Your task to perform on an android device: turn vacation reply on in the gmail app Image 0: 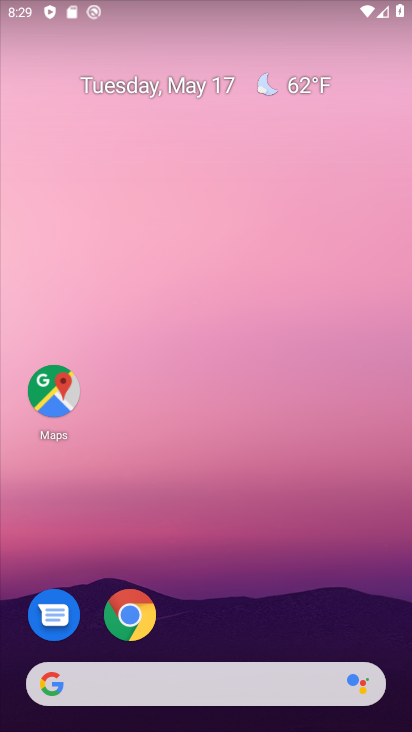
Step 0: drag from (261, 580) to (252, 79)
Your task to perform on an android device: turn vacation reply on in the gmail app Image 1: 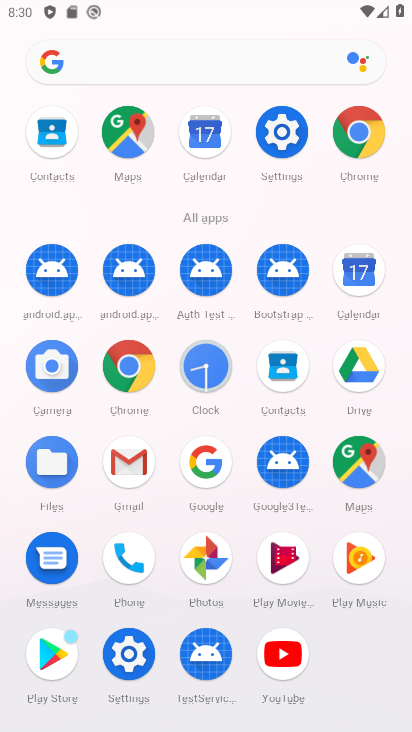
Step 1: click (134, 456)
Your task to perform on an android device: turn vacation reply on in the gmail app Image 2: 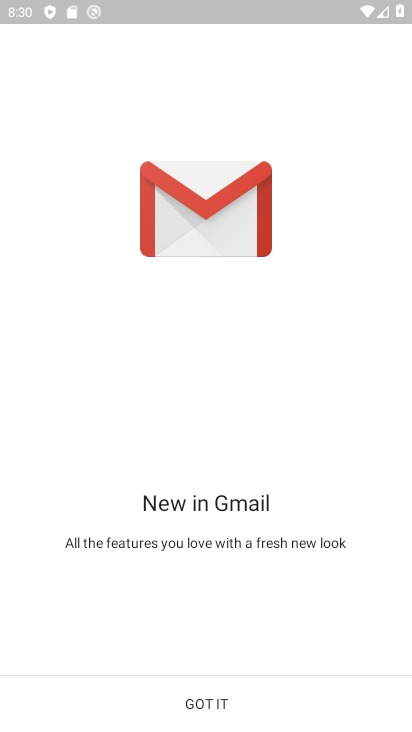
Step 2: click (207, 694)
Your task to perform on an android device: turn vacation reply on in the gmail app Image 3: 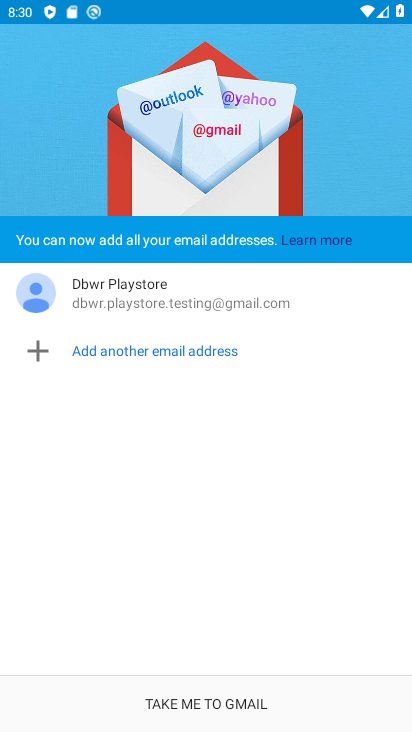
Step 3: click (207, 694)
Your task to perform on an android device: turn vacation reply on in the gmail app Image 4: 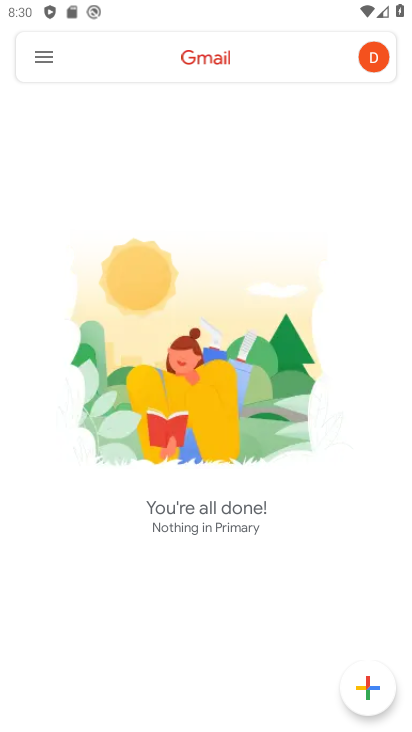
Step 4: click (207, 694)
Your task to perform on an android device: turn vacation reply on in the gmail app Image 5: 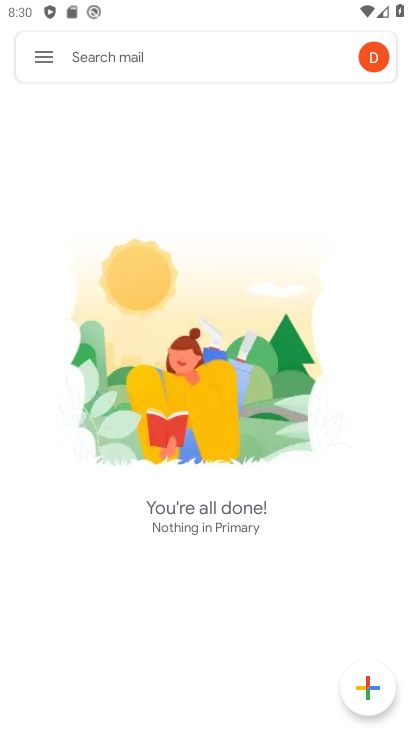
Step 5: click (43, 49)
Your task to perform on an android device: turn vacation reply on in the gmail app Image 6: 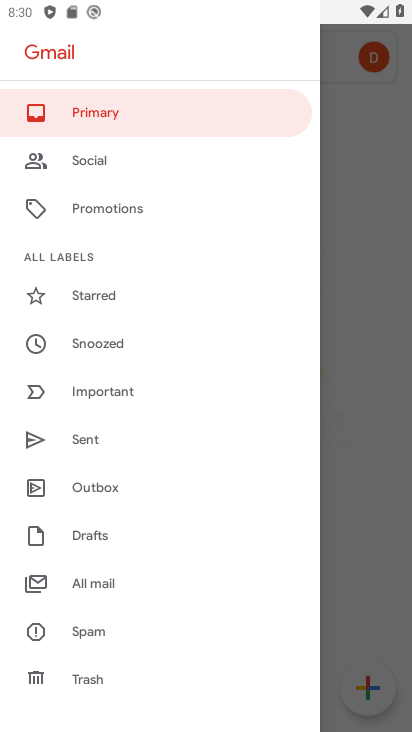
Step 6: drag from (189, 625) to (207, 212)
Your task to perform on an android device: turn vacation reply on in the gmail app Image 7: 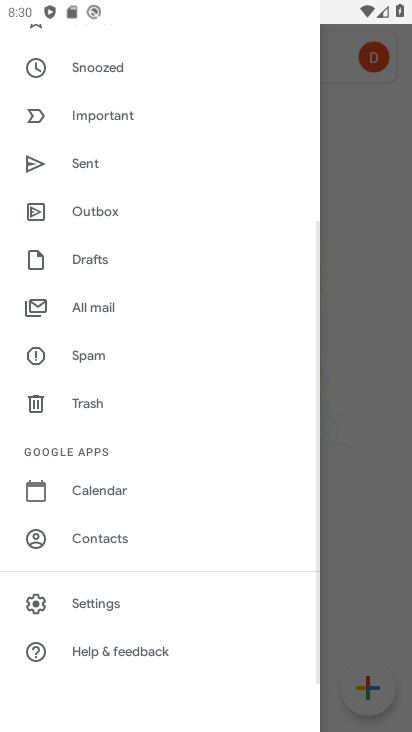
Step 7: click (93, 597)
Your task to perform on an android device: turn vacation reply on in the gmail app Image 8: 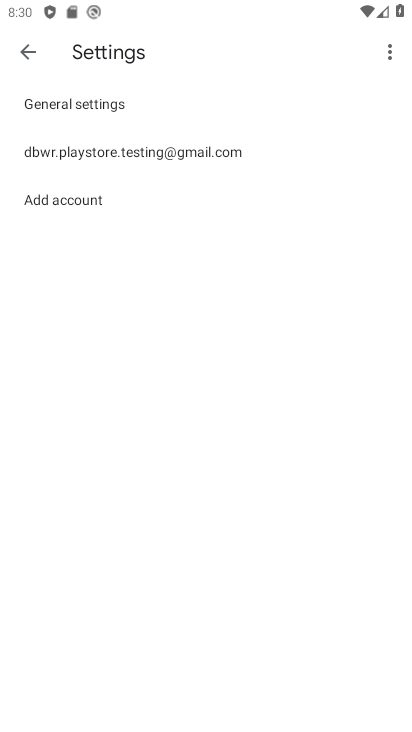
Step 8: click (191, 155)
Your task to perform on an android device: turn vacation reply on in the gmail app Image 9: 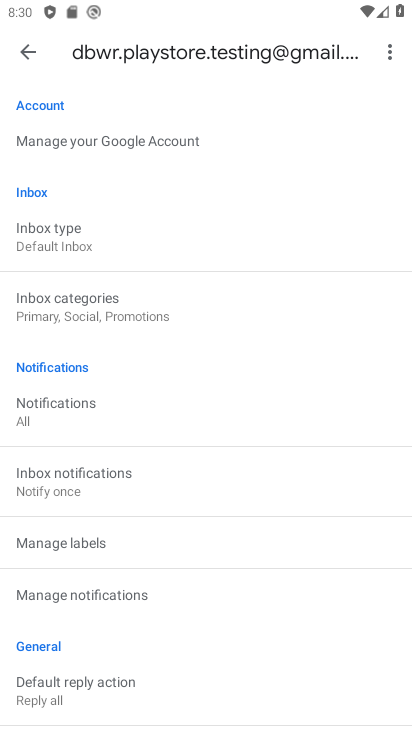
Step 9: drag from (204, 623) to (195, 261)
Your task to perform on an android device: turn vacation reply on in the gmail app Image 10: 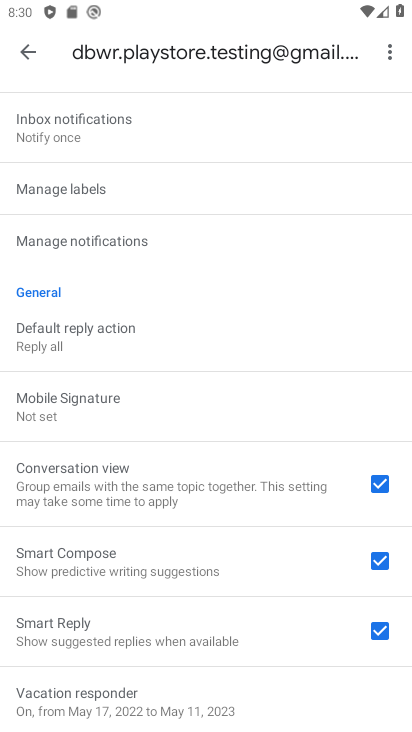
Step 10: drag from (189, 663) to (191, 306)
Your task to perform on an android device: turn vacation reply on in the gmail app Image 11: 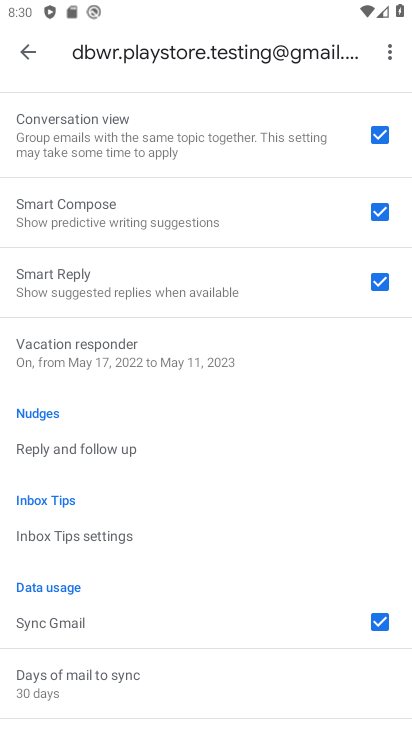
Step 11: click (91, 348)
Your task to perform on an android device: turn vacation reply on in the gmail app Image 12: 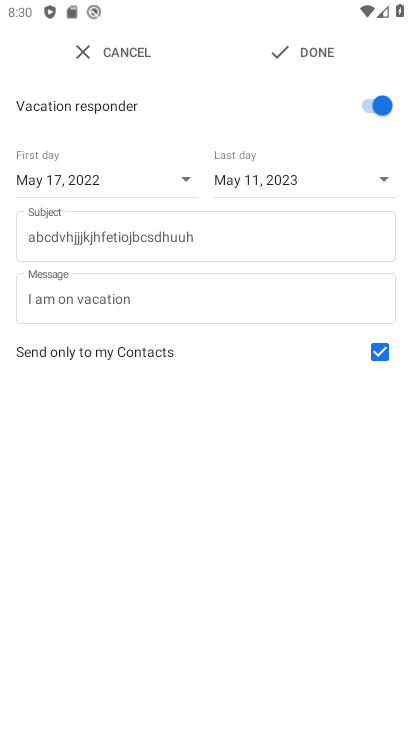
Step 12: click (315, 56)
Your task to perform on an android device: turn vacation reply on in the gmail app Image 13: 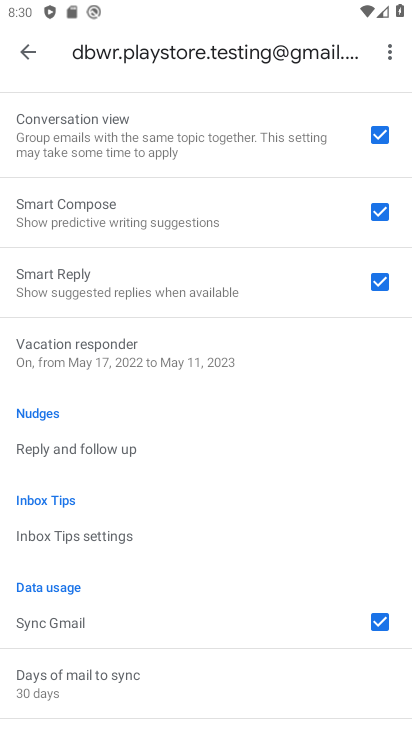
Step 13: task complete